Your task to perform on an android device: Open internet settings Image 0: 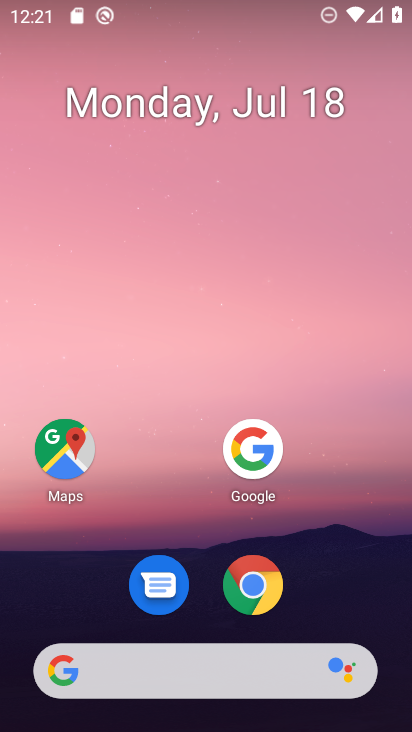
Step 0: drag from (256, 666) to (360, 214)
Your task to perform on an android device: Open internet settings Image 1: 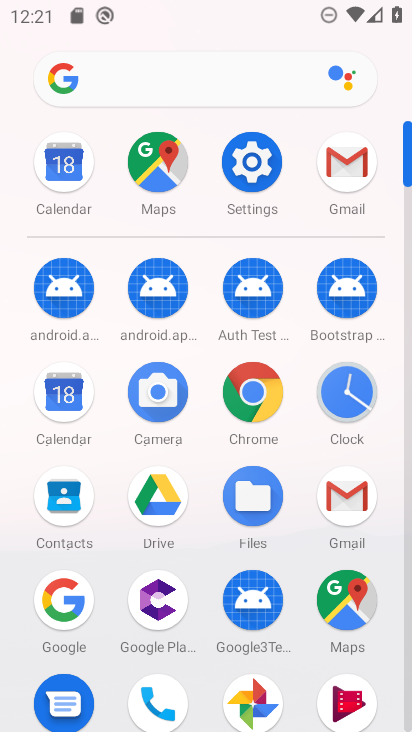
Step 1: click (254, 168)
Your task to perform on an android device: Open internet settings Image 2: 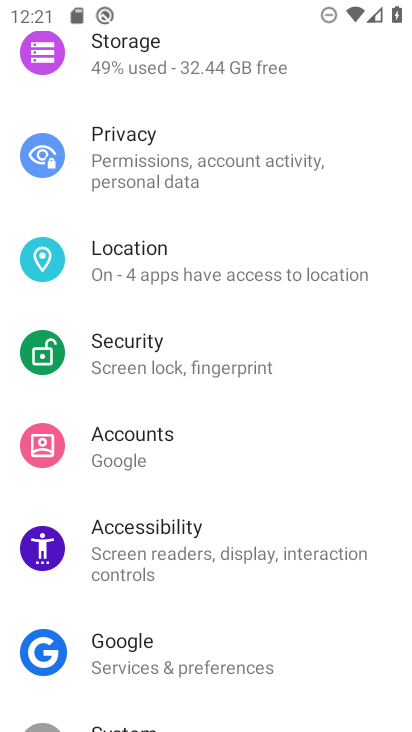
Step 2: drag from (357, 42) to (366, 157)
Your task to perform on an android device: Open internet settings Image 3: 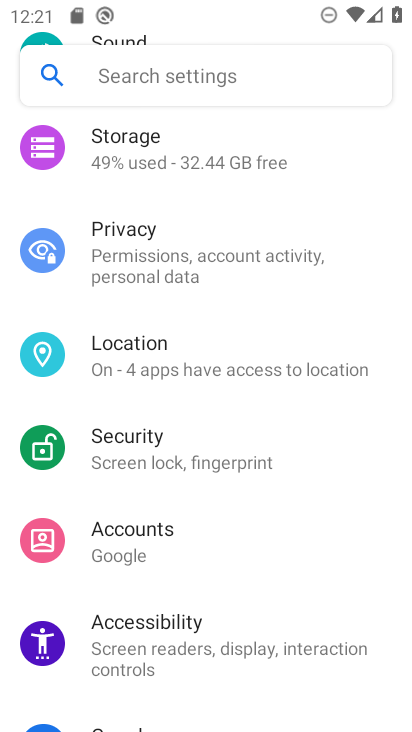
Step 3: drag from (263, 133) to (222, 603)
Your task to perform on an android device: Open internet settings Image 4: 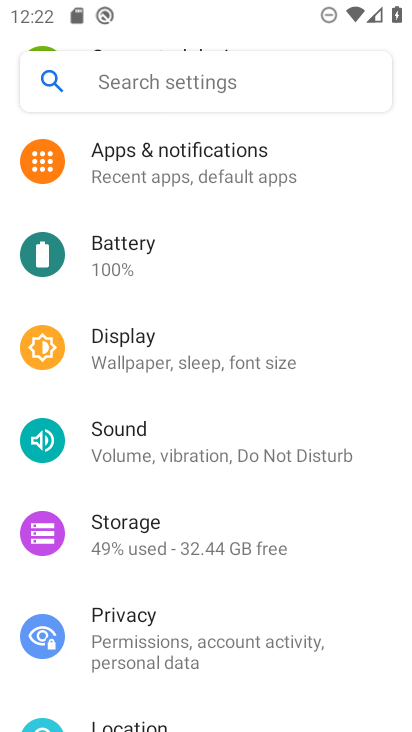
Step 4: drag from (309, 191) to (296, 551)
Your task to perform on an android device: Open internet settings Image 5: 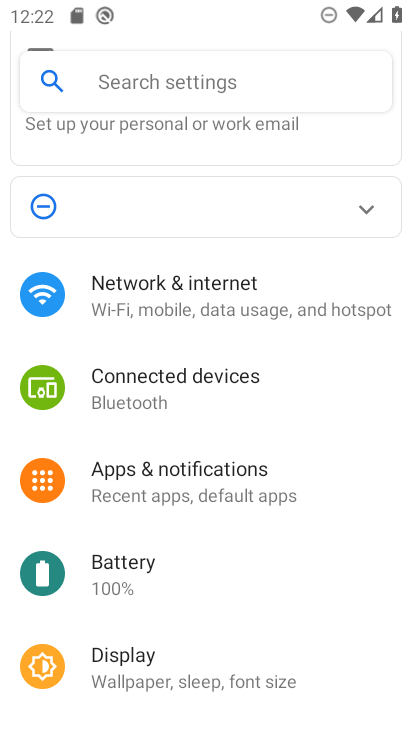
Step 5: click (171, 301)
Your task to perform on an android device: Open internet settings Image 6: 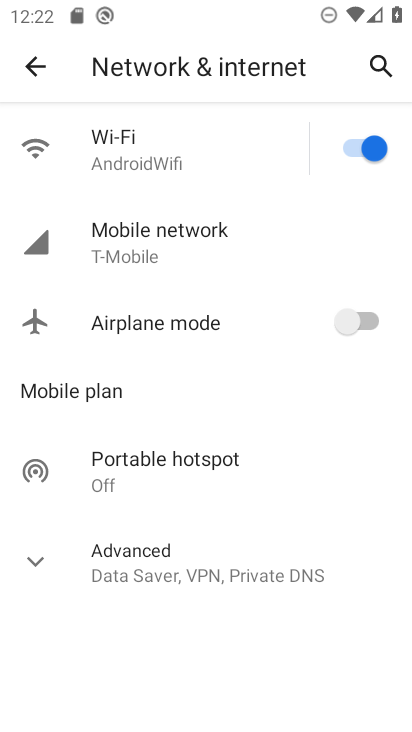
Step 6: task complete